Your task to perform on an android device: View the shopping cart on amazon.com. Add asus rog to the cart on amazon.com Image 0: 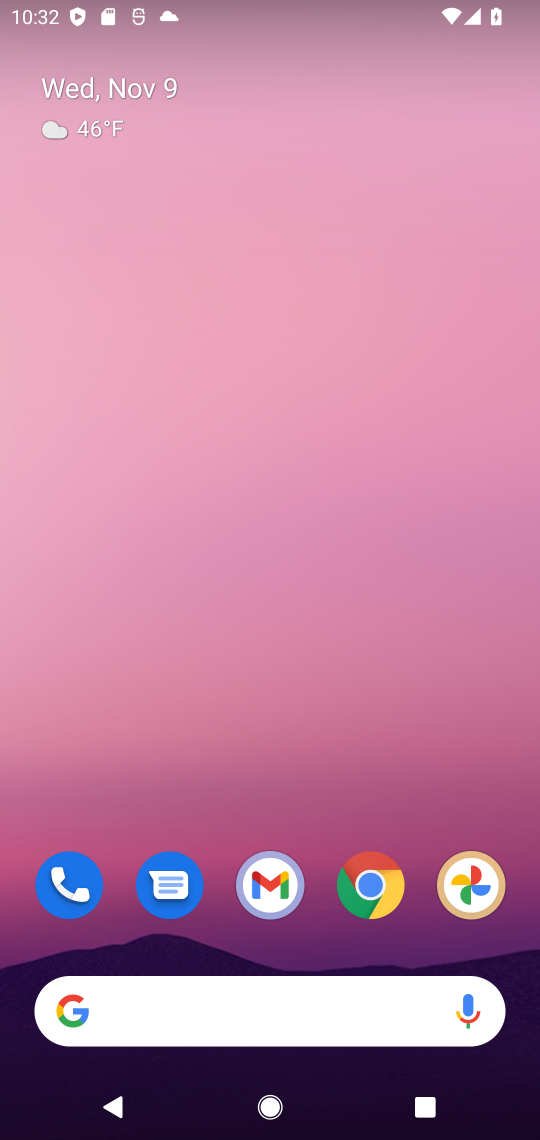
Step 0: click (355, 890)
Your task to perform on an android device: View the shopping cart on amazon.com. Add asus rog to the cart on amazon.com Image 1: 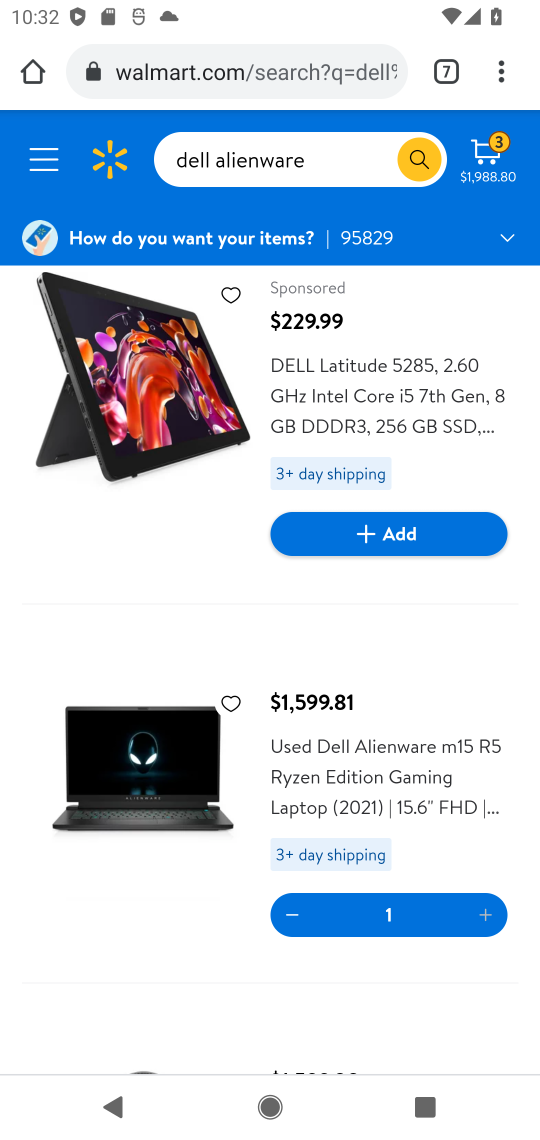
Step 1: click (441, 63)
Your task to perform on an android device: View the shopping cart on amazon.com. Add asus rog to the cart on amazon.com Image 2: 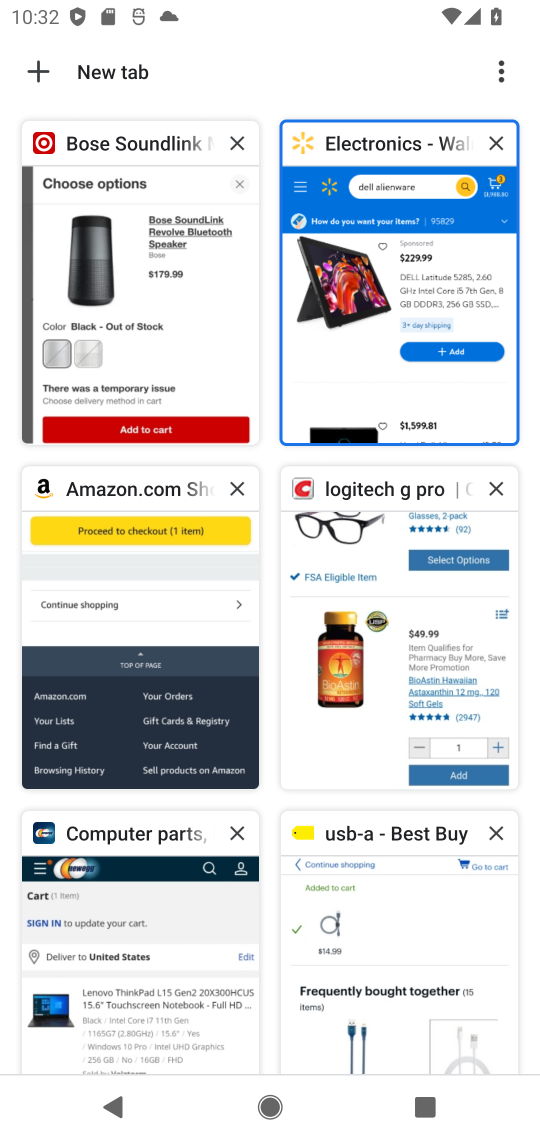
Step 2: click (113, 631)
Your task to perform on an android device: View the shopping cart on amazon.com. Add asus rog to the cart on amazon.com Image 3: 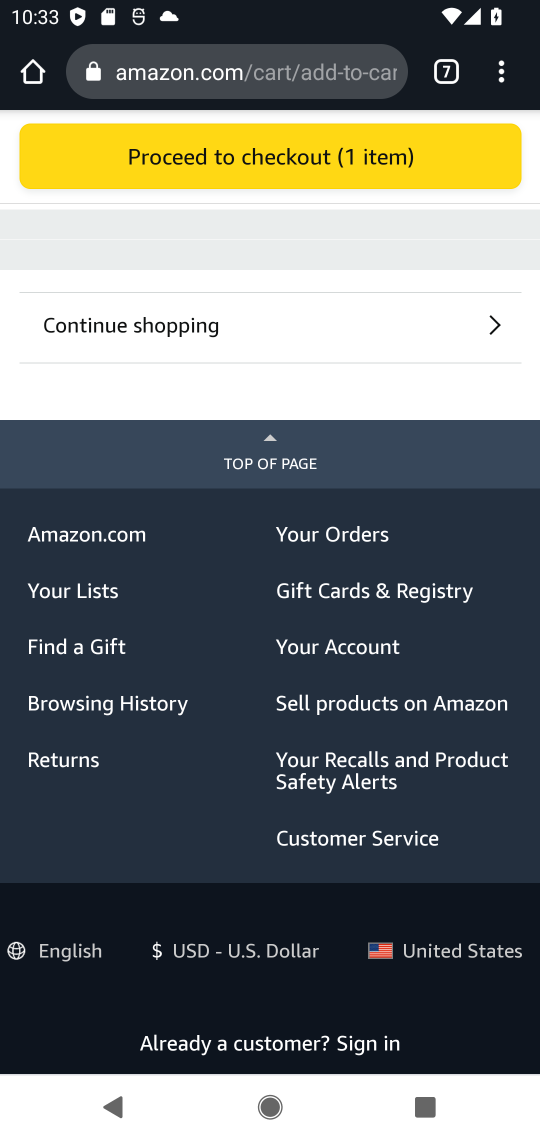
Step 3: click (424, 718)
Your task to perform on an android device: View the shopping cart on amazon.com. Add asus rog to the cart on amazon.com Image 4: 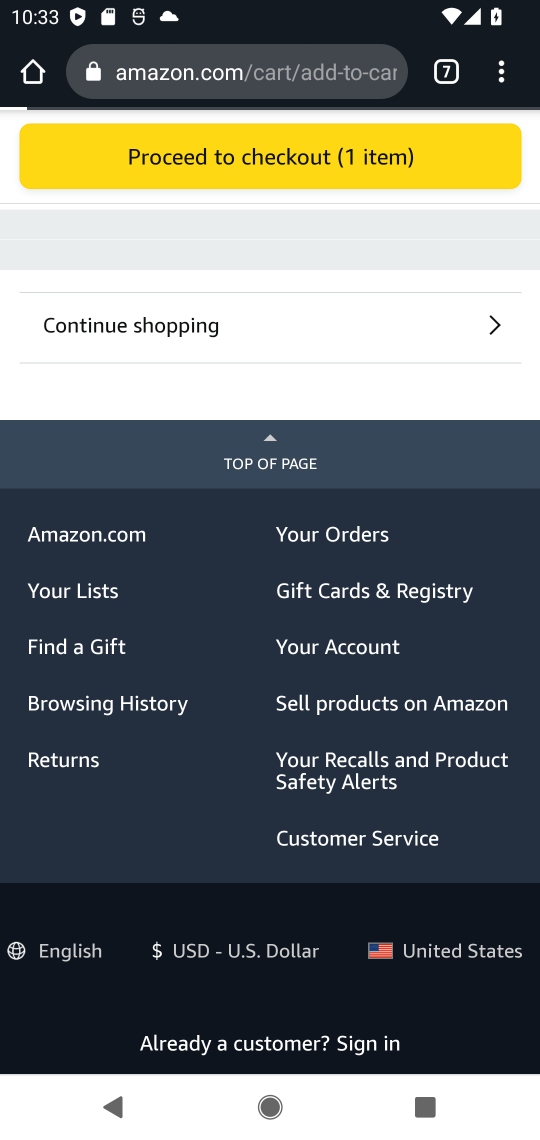
Step 4: drag from (439, 365) to (457, 752)
Your task to perform on an android device: View the shopping cart on amazon.com. Add asus rog to the cart on amazon.com Image 5: 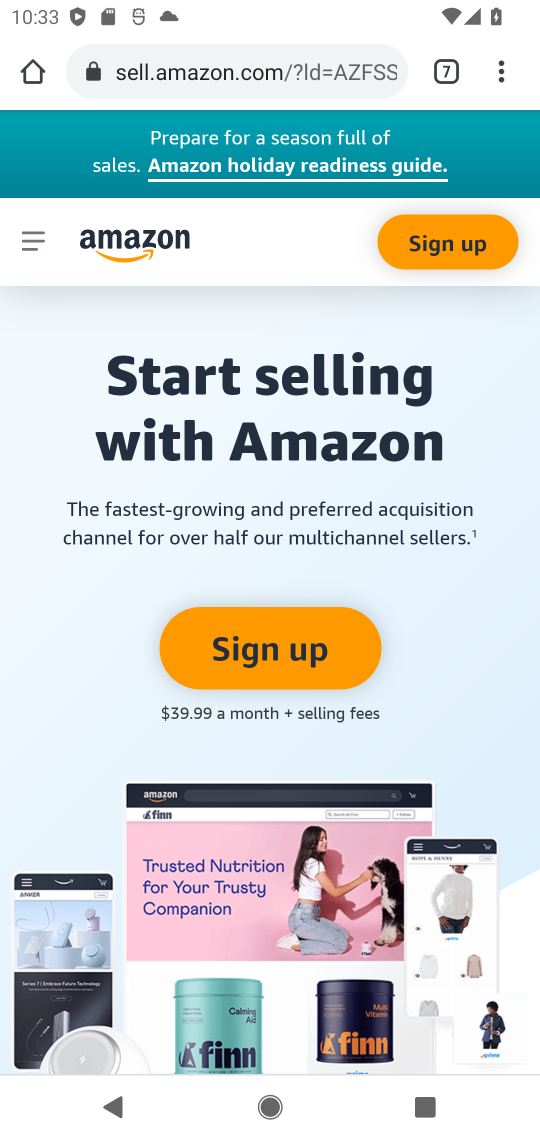
Step 5: press back button
Your task to perform on an android device: View the shopping cart on amazon.com. Add asus rog to the cart on amazon.com Image 6: 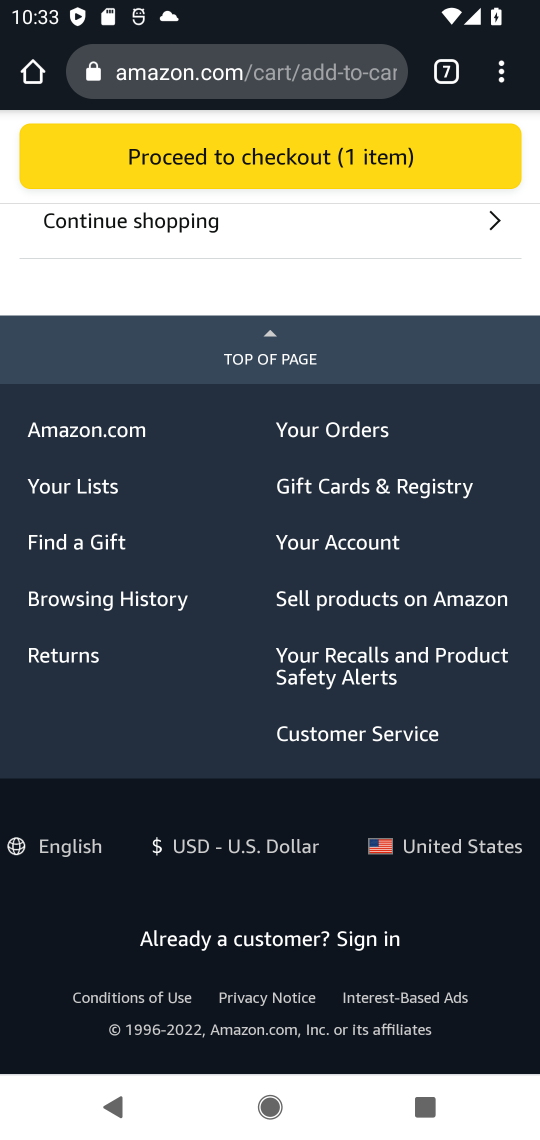
Step 6: drag from (436, 227) to (428, 595)
Your task to perform on an android device: View the shopping cart on amazon.com. Add asus rog to the cart on amazon.com Image 7: 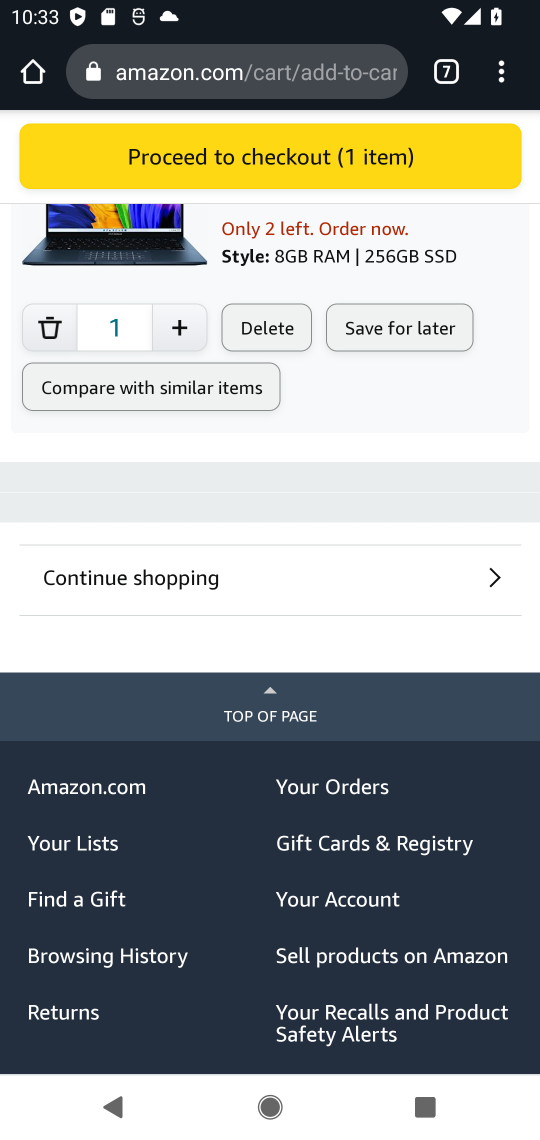
Step 7: drag from (509, 256) to (503, 766)
Your task to perform on an android device: View the shopping cart on amazon.com. Add asus rog to the cart on amazon.com Image 8: 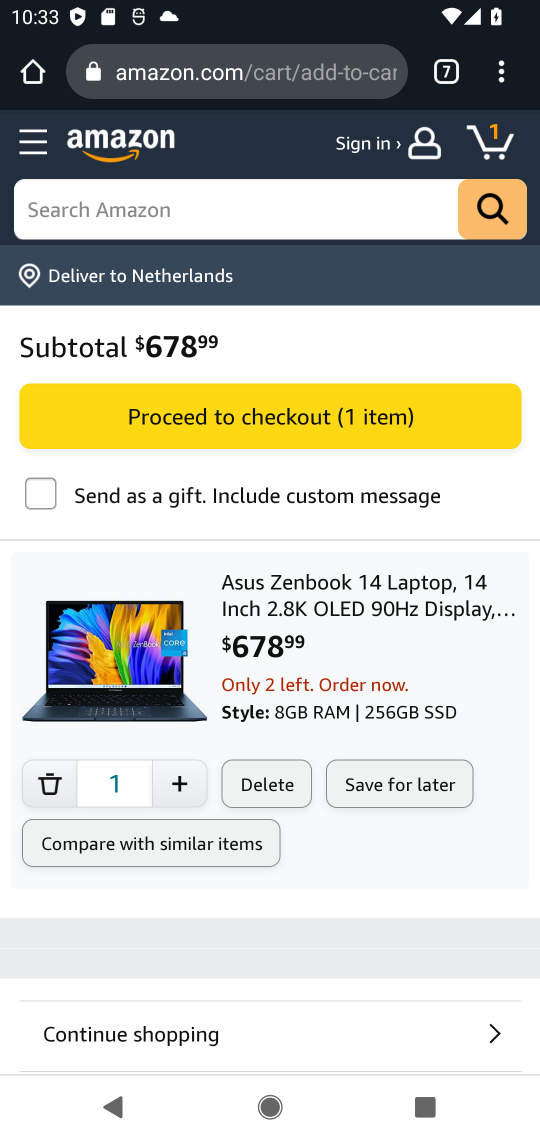
Step 8: click (367, 195)
Your task to perform on an android device: View the shopping cart on amazon.com. Add asus rog to the cart on amazon.com Image 9: 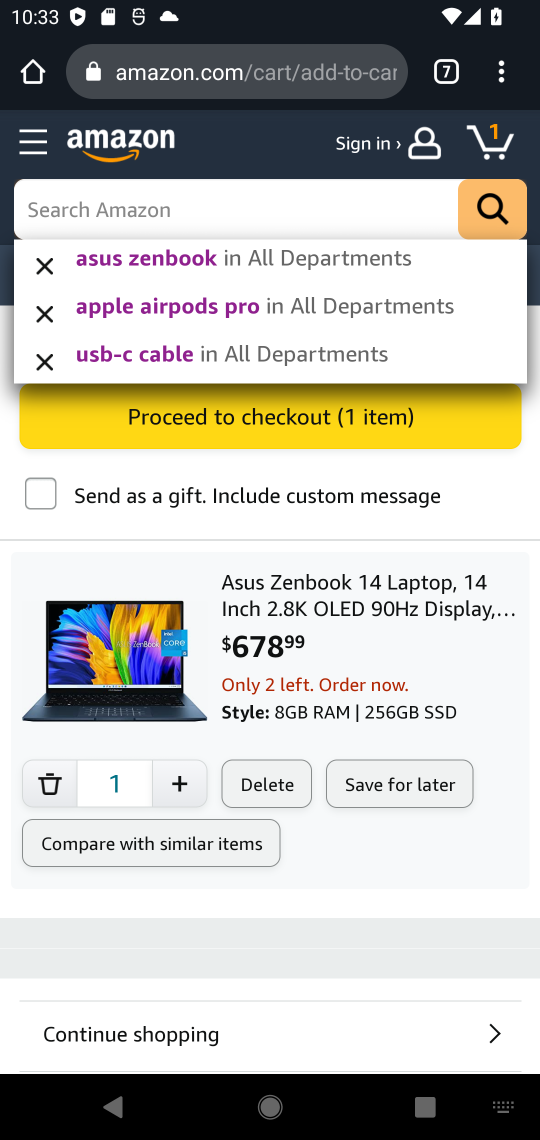
Step 9: type "asus rog"
Your task to perform on an android device: View the shopping cart on amazon.com. Add asus rog to the cart on amazon.com Image 10: 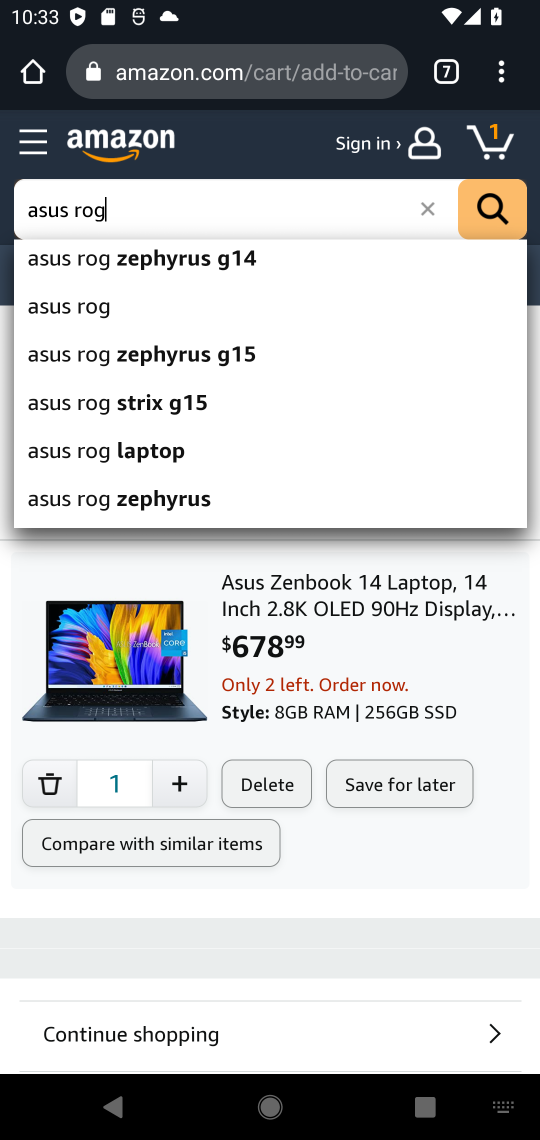
Step 10: click (95, 311)
Your task to perform on an android device: View the shopping cart on amazon.com. Add asus rog to the cart on amazon.com Image 11: 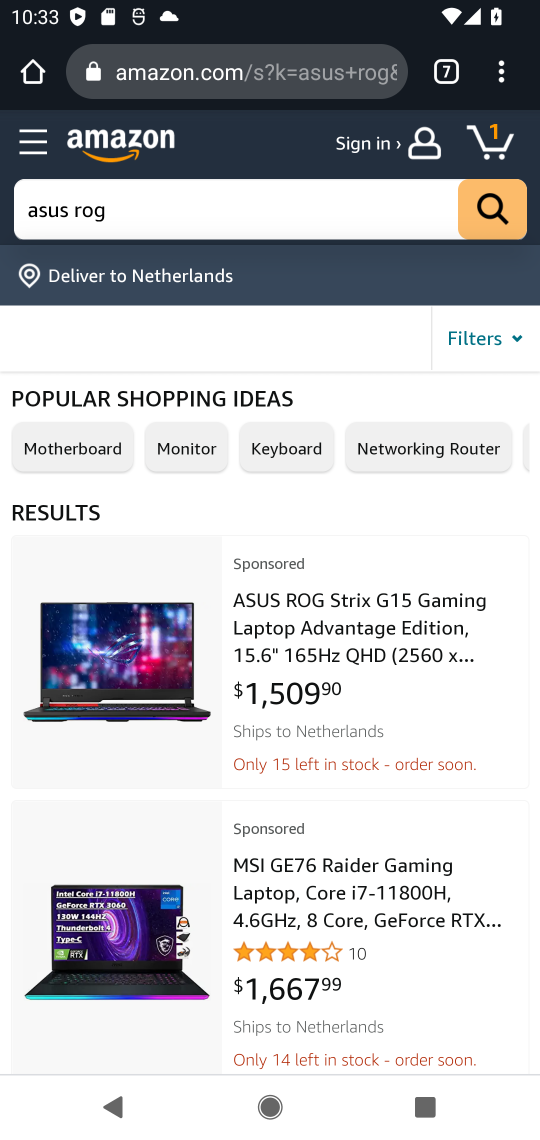
Step 11: click (371, 650)
Your task to perform on an android device: View the shopping cart on amazon.com. Add asus rog to the cart on amazon.com Image 12: 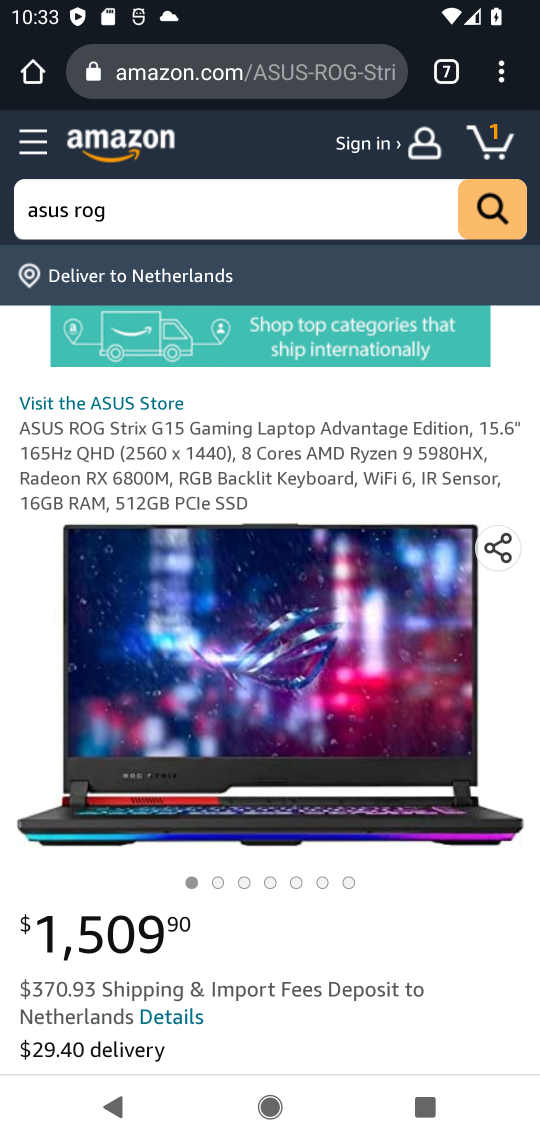
Step 12: drag from (315, 905) to (358, 501)
Your task to perform on an android device: View the shopping cart on amazon.com. Add asus rog to the cart on amazon.com Image 13: 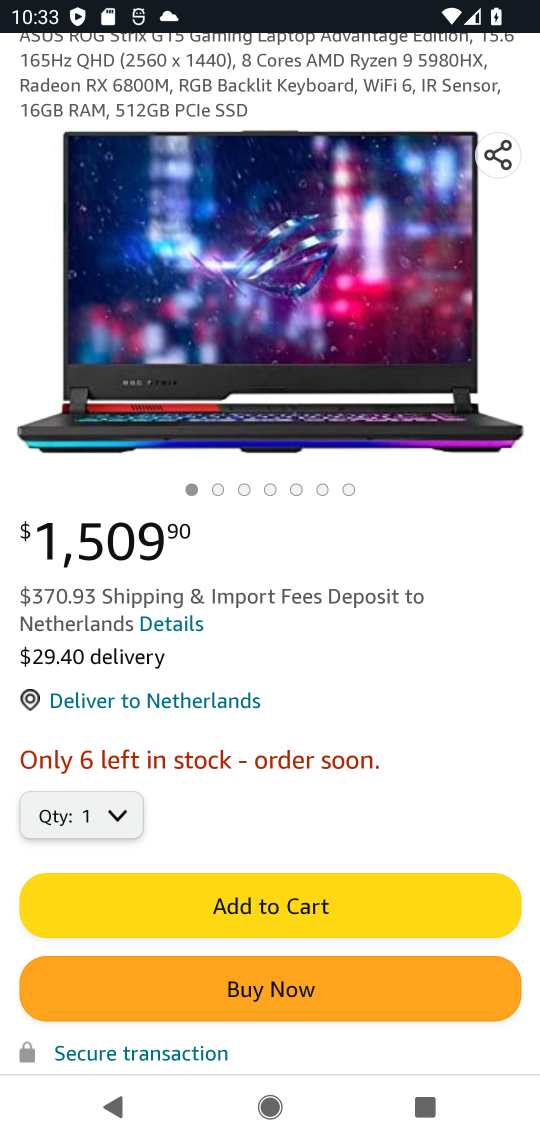
Step 13: click (303, 903)
Your task to perform on an android device: View the shopping cart on amazon.com. Add asus rog to the cart on amazon.com Image 14: 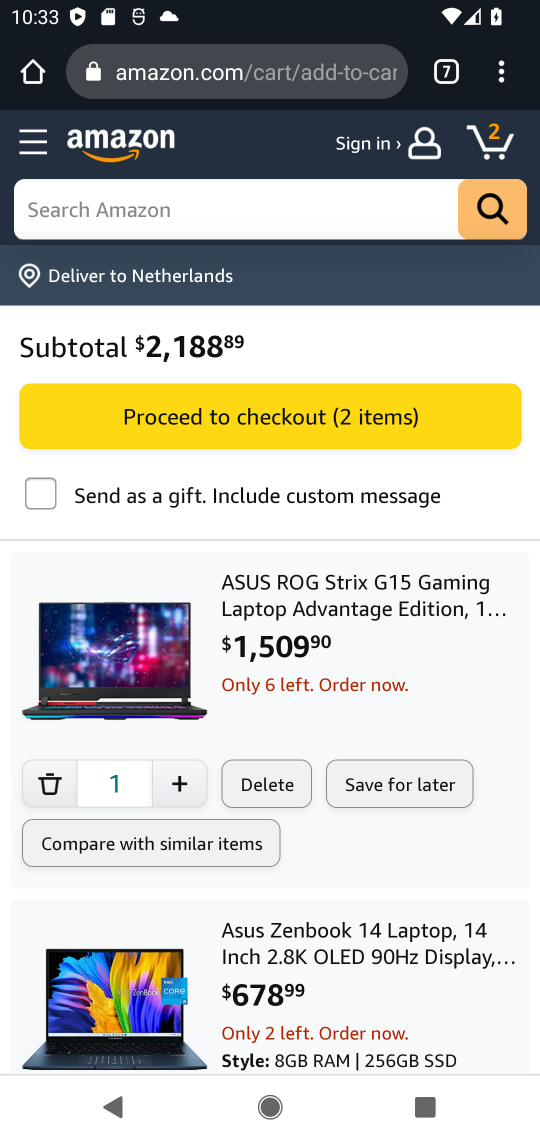
Step 14: task complete